Your task to perform on an android device: Open calendar and show me the second week of next month Image 0: 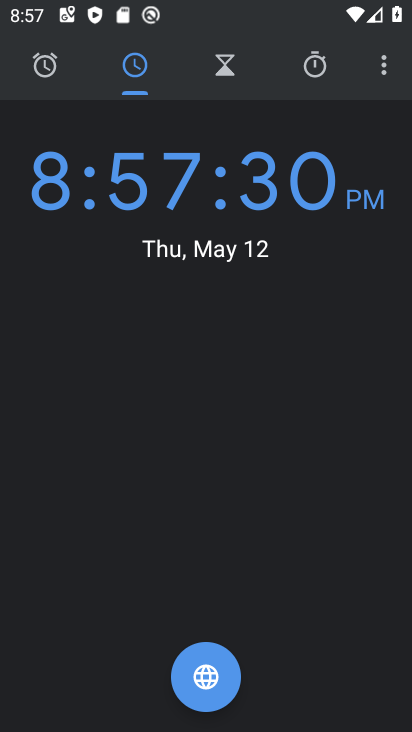
Step 0: press home button
Your task to perform on an android device: Open calendar and show me the second week of next month Image 1: 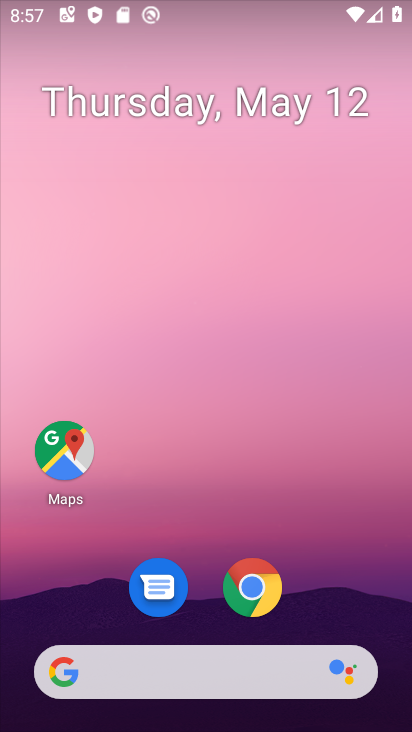
Step 1: drag from (336, 582) to (319, 136)
Your task to perform on an android device: Open calendar and show me the second week of next month Image 2: 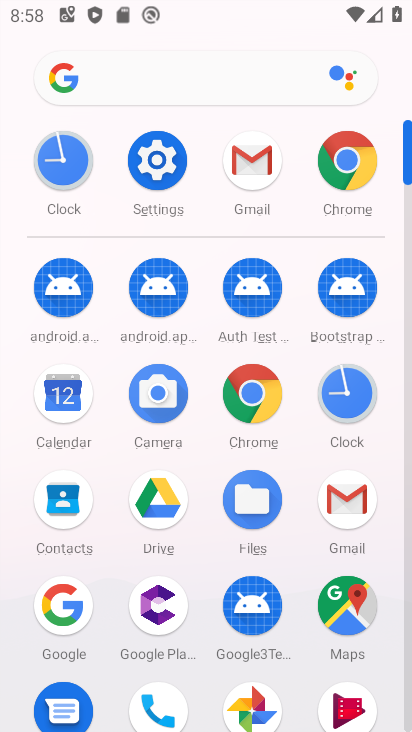
Step 2: click (69, 384)
Your task to perform on an android device: Open calendar and show me the second week of next month Image 3: 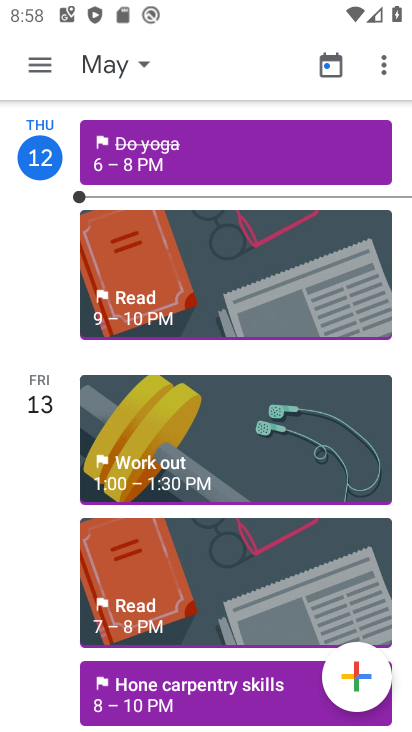
Step 3: click (45, 62)
Your task to perform on an android device: Open calendar and show me the second week of next month Image 4: 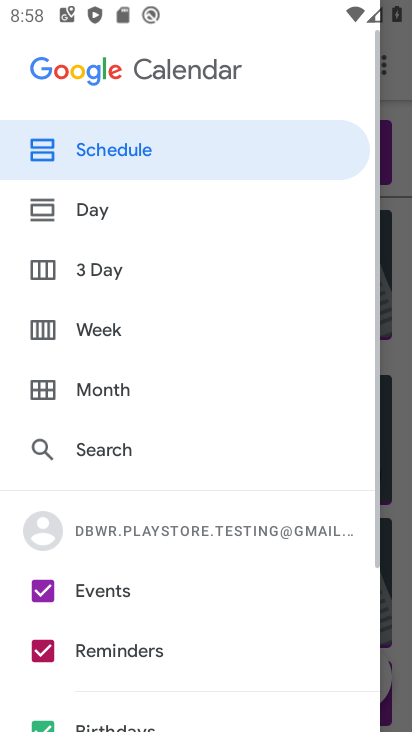
Step 4: click (79, 385)
Your task to perform on an android device: Open calendar and show me the second week of next month Image 5: 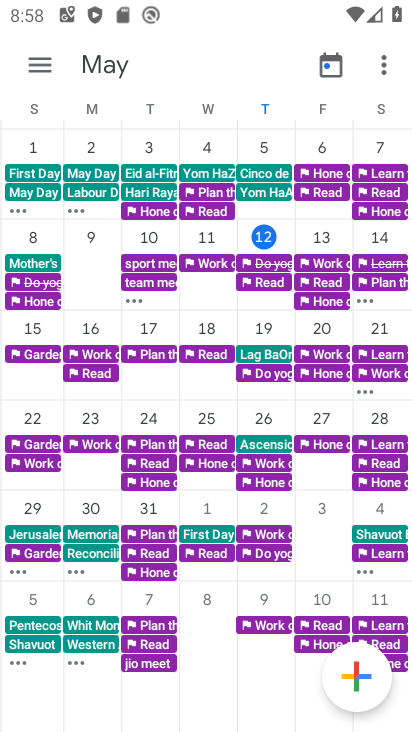
Step 5: task complete